Your task to perform on an android device: turn on location history Image 0: 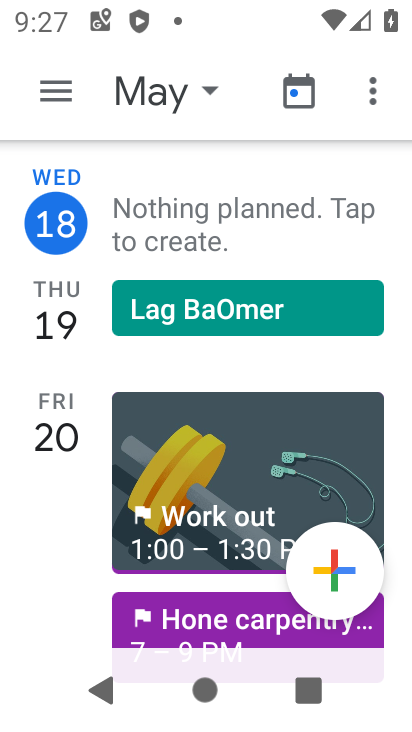
Step 0: press home button
Your task to perform on an android device: turn on location history Image 1: 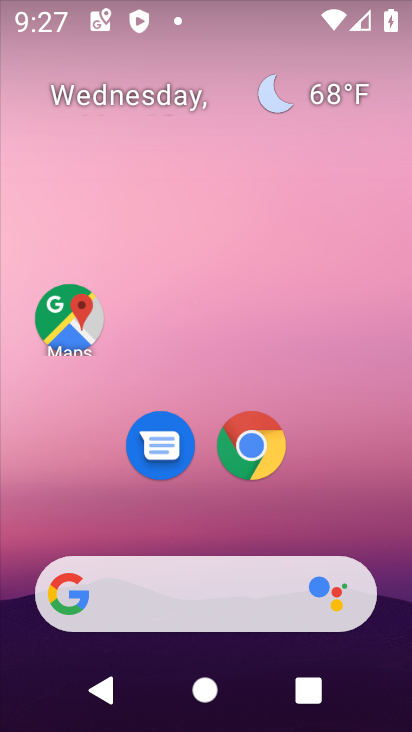
Step 1: drag from (402, 469) to (370, 41)
Your task to perform on an android device: turn on location history Image 2: 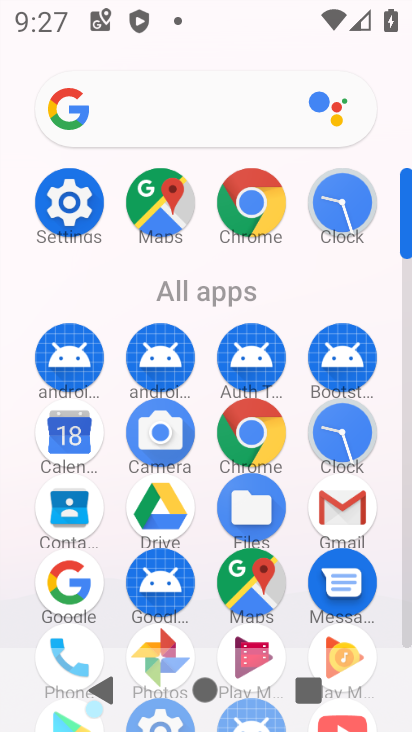
Step 2: click (72, 212)
Your task to perform on an android device: turn on location history Image 3: 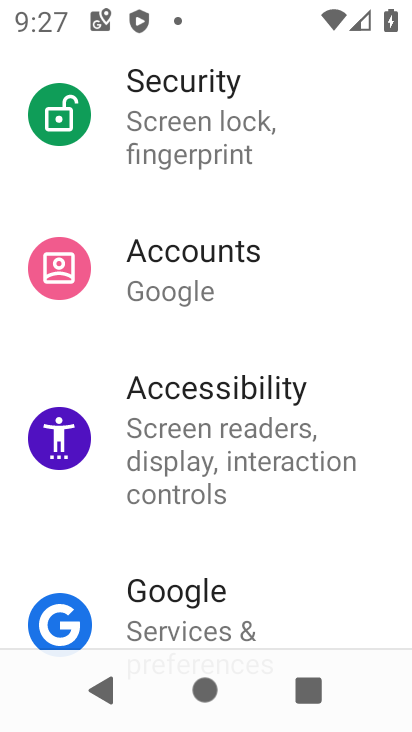
Step 3: drag from (256, 119) to (233, 523)
Your task to perform on an android device: turn on location history Image 4: 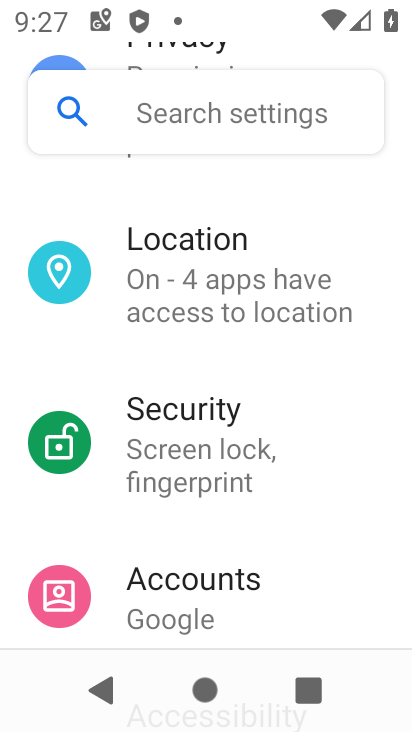
Step 4: drag from (236, 271) to (258, 559)
Your task to perform on an android device: turn on location history Image 5: 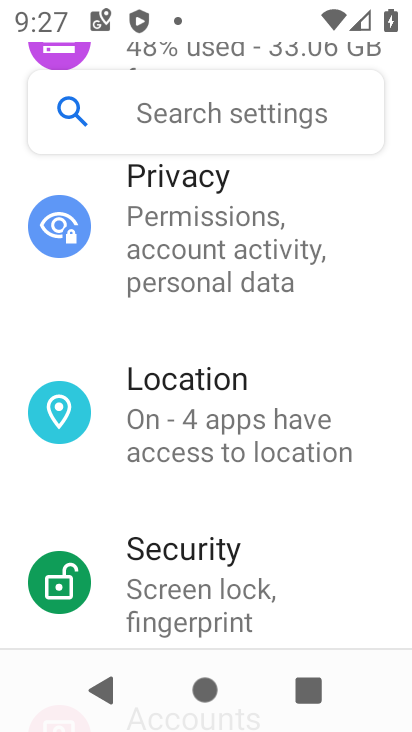
Step 5: click (218, 405)
Your task to perform on an android device: turn on location history Image 6: 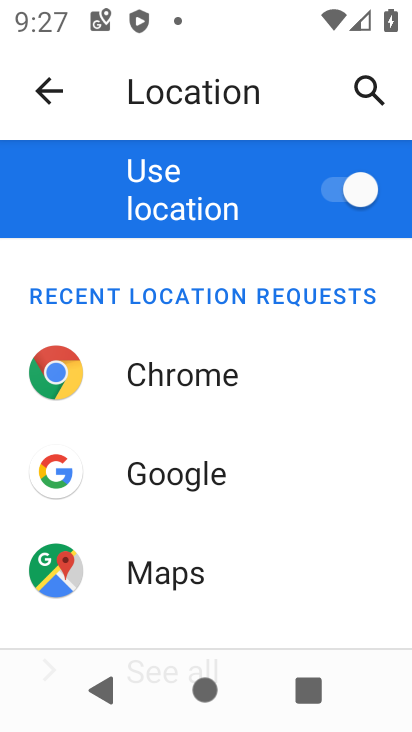
Step 6: task complete